Your task to perform on an android device: Open calendar and show me the first week of next month Image 0: 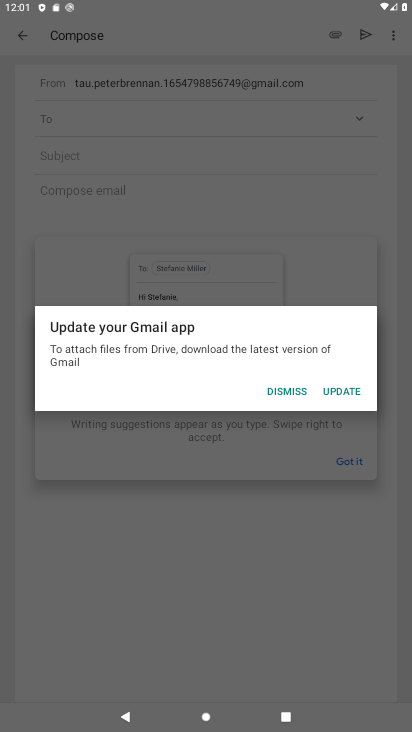
Step 0: press home button
Your task to perform on an android device: Open calendar and show me the first week of next month Image 1: 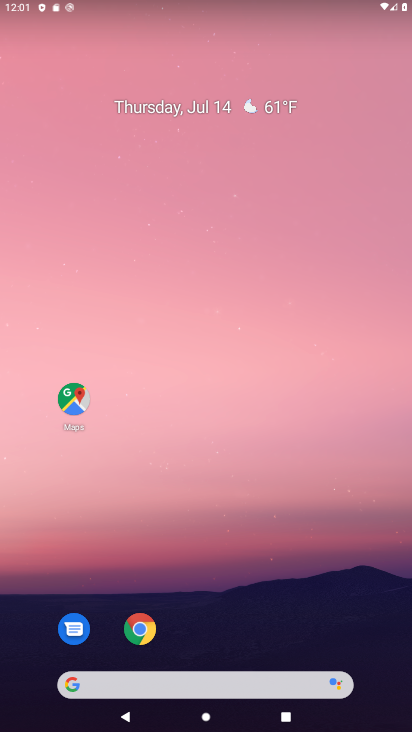
Step 1: drag from (231, 574) to (192, 48)
Your task to perform on an android device: Open calendar and show me the first week of next month Image 2: 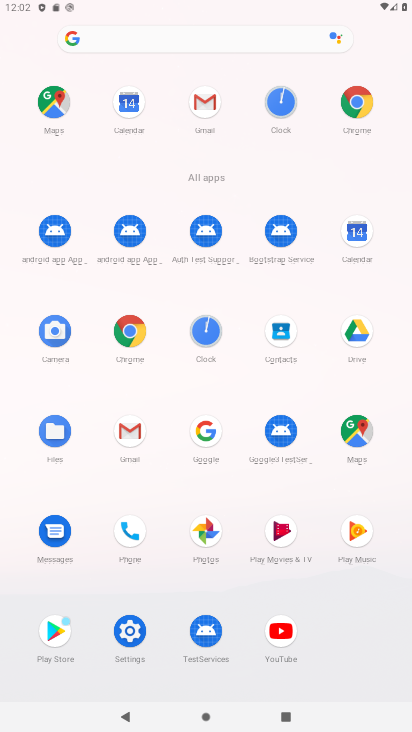
Step 2: click (357, 233)
Your task to perform on an android device: Open calendar and show me the first week of next month Image 3: 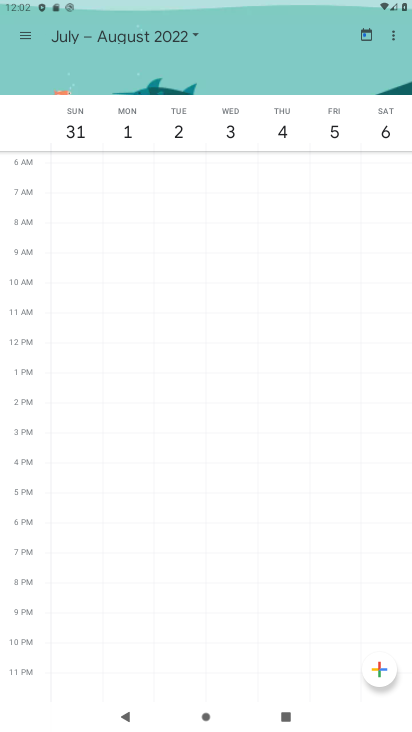
Step 3: click (193, 36)
Your task to perform on an android device: Open calendar and show me the first week of next month Image 4: 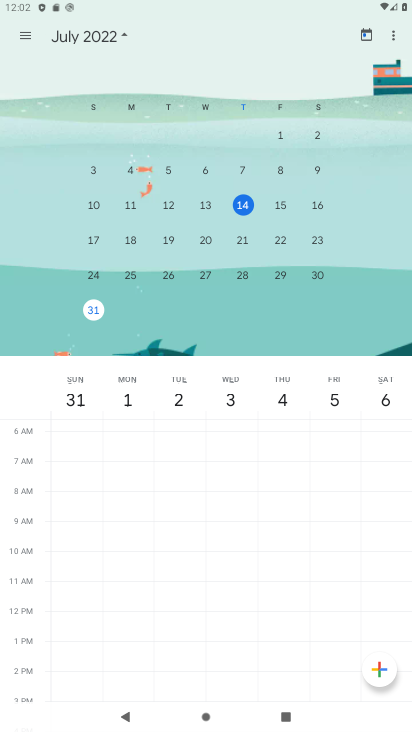
Step 4: drag from (343, 244) to (86, 260)
Your task to perform on an android device: Open calendar and show me the first week of next month Image 5: 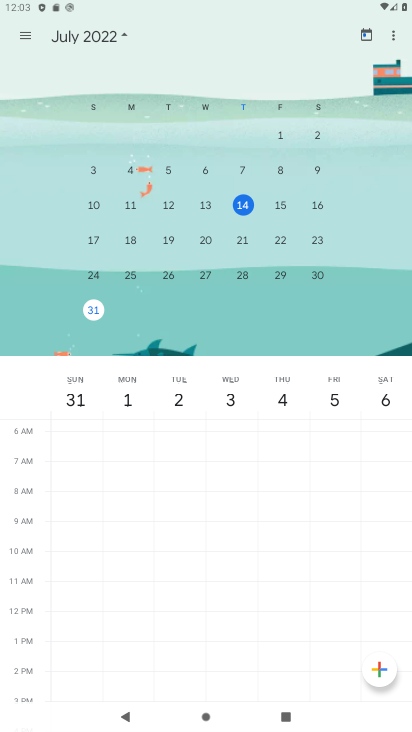
Step 5: drag from (352, 191) to (12, 225)
Your task to perform on an android device: Open calendar and show me the first week of next month Image 6: 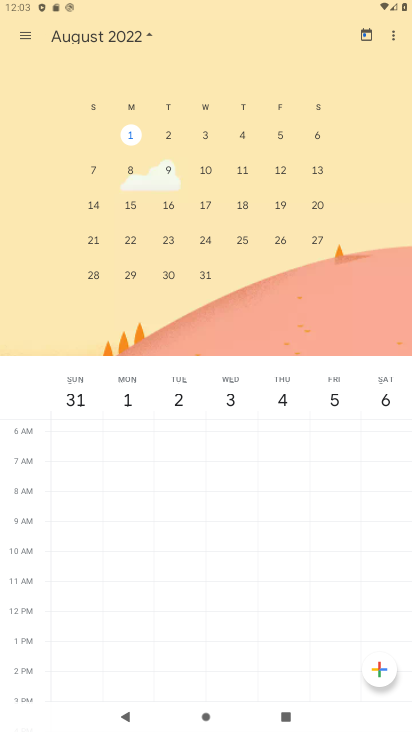
Step 6: click (131, 132)
Your task to perform on an android device: Open calendar and show me the first week of next month Image 7: 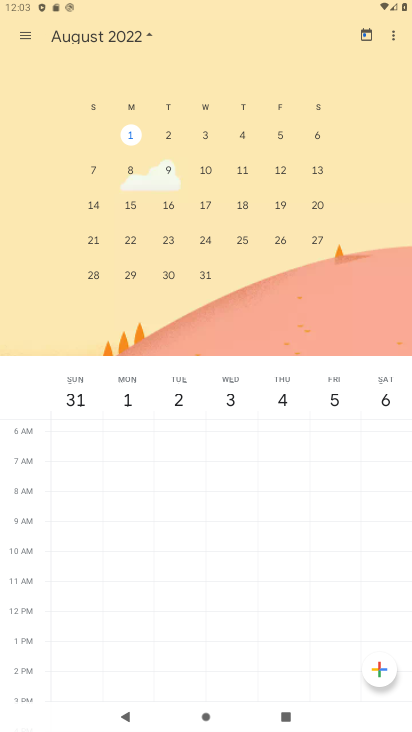
Step 7: task complete